Your task to perform on an android device: Open Chrome and go to settings Image 0: 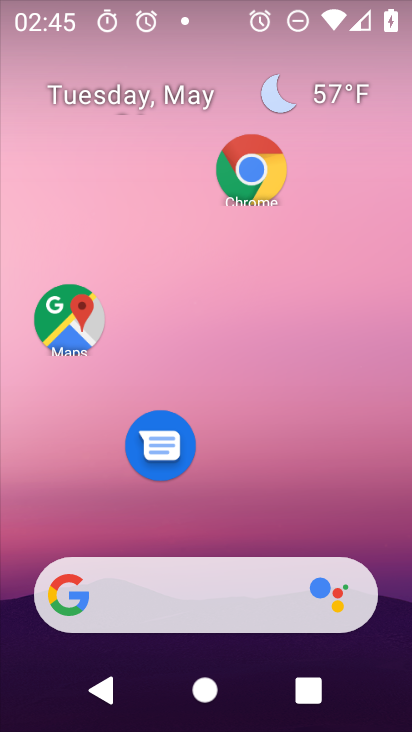
Step 0: click (255, 168)
Your task to perform on an android device: Open Chrome and go to settings Image 1: 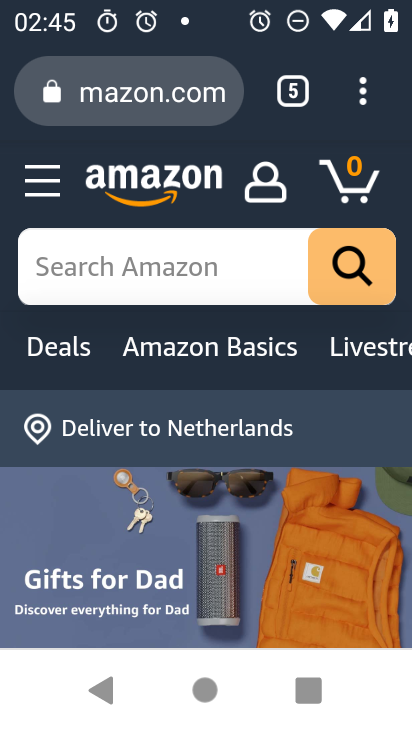
Step 1: click (361, 105)
Your task to perform on an android device: Open Chrome and go to settings Image 2: 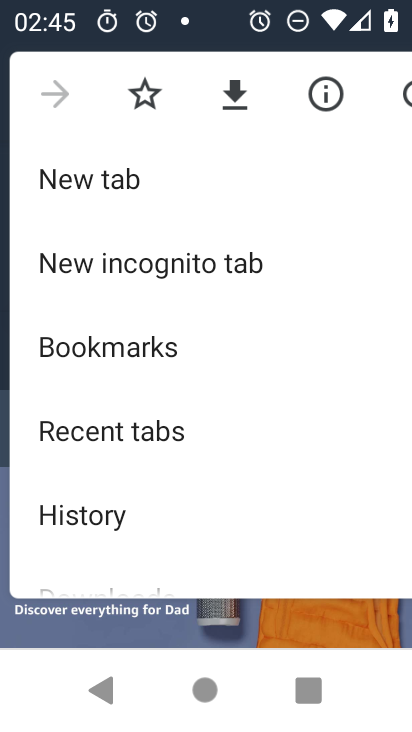
Step 2: drag from (173, 539) to (175, 291)
Your task to perform on an android device: Open Chrome and go to settings Image 3: 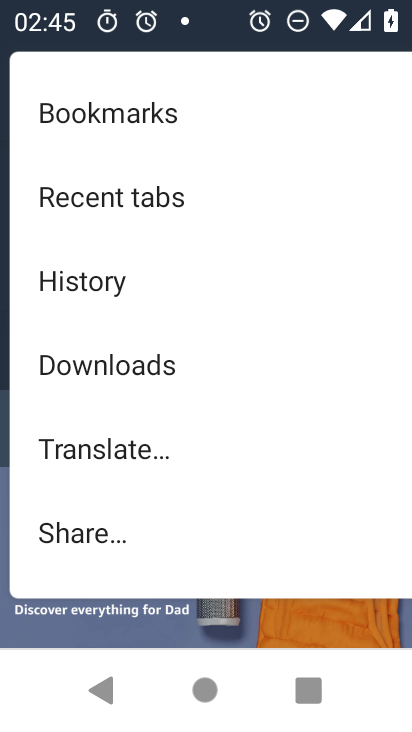
Step 3: drag from (124, 552) to (131, 256)
Your task to perform on an android device: Open Chrome and go to settings Image 4: 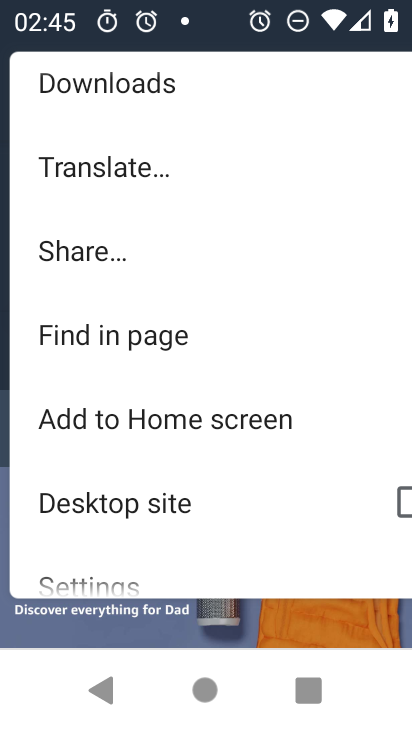
Step 4: click (99, 579)
Your task to perform on an android device: Open Chrome and go to settings Image 5: 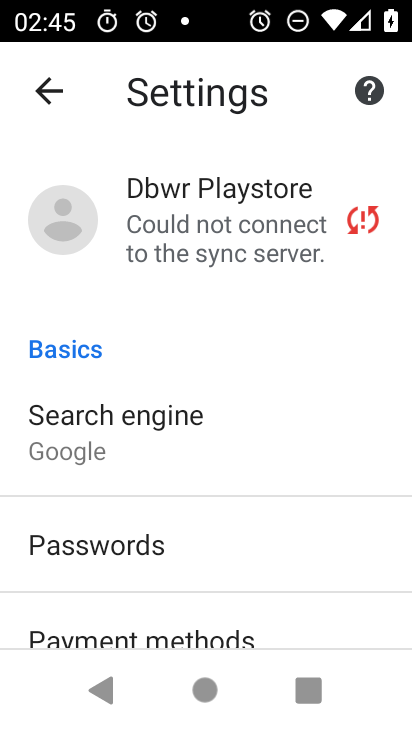
Step 5: task complete